Your task to perform on an android device: Open my contact list Image 0: 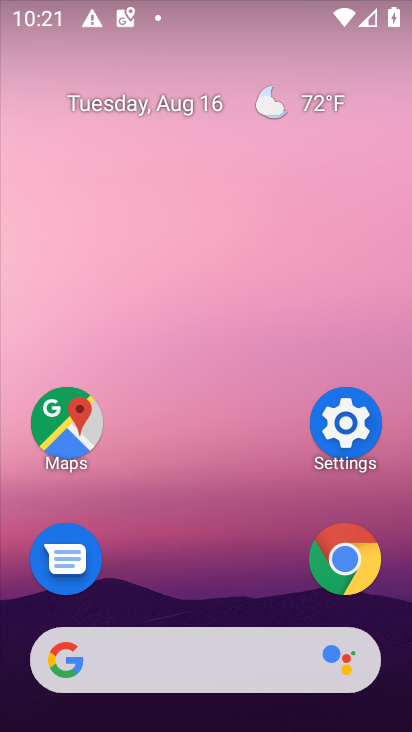
Step 0: press home button
Your task to perform on an android device: Open my contact list Image 1: 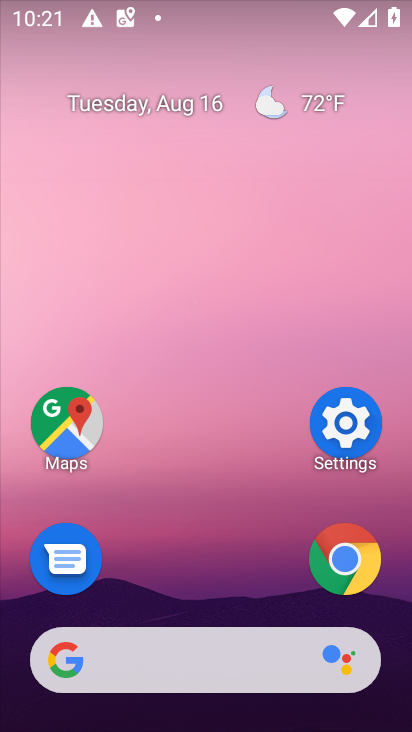
Step 1: drag from (183, 617) to (311, 73)
Your task to perform on an android device: Open my contact list Image 2: 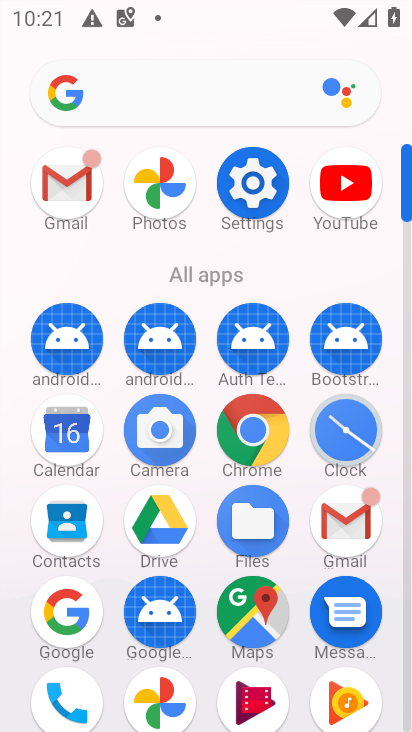
Step 2: drag from (219, 581) to (354, 223)
Your task to perform on an android device: Open my contact list Image 3: 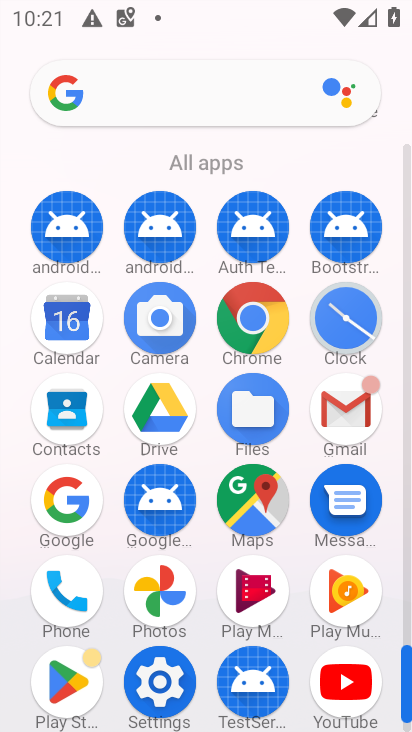
Step 3: click (70, 409)
Your task to perform on an android device: Open my contact list Image 4: 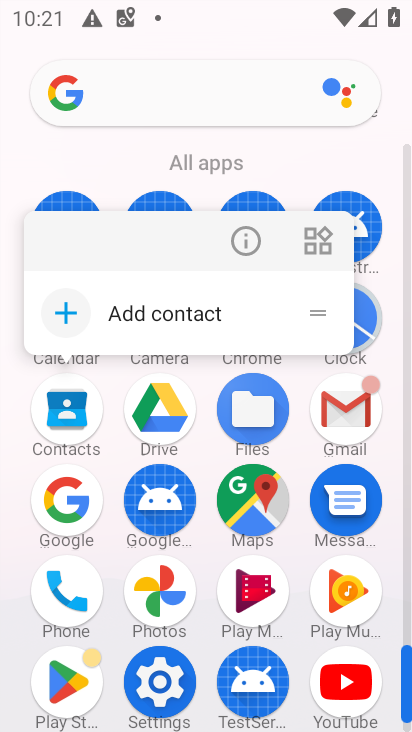
Step 4: click (46, 435)
Your task to perform on an android device: Open my contact list Image 5: 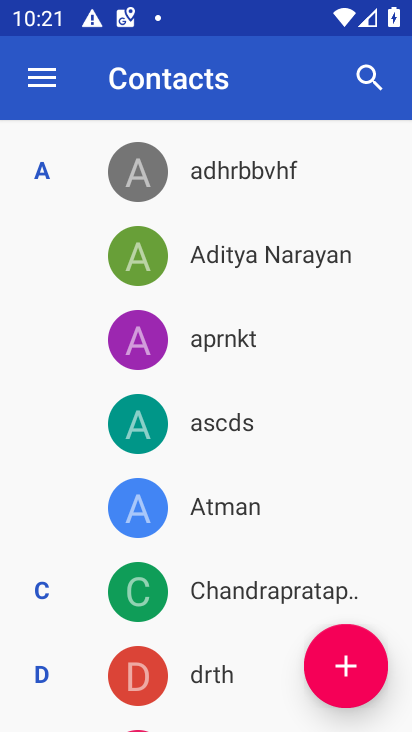
Step 5: task complete